Your task to perform on an android device: toggle sleep mode Image 0: 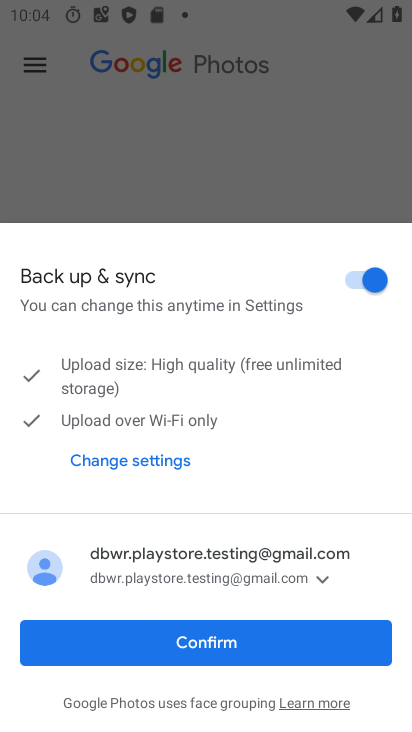
Step 0: press home button
Your task to perform on an android device: toggle sleep mode Image 1: 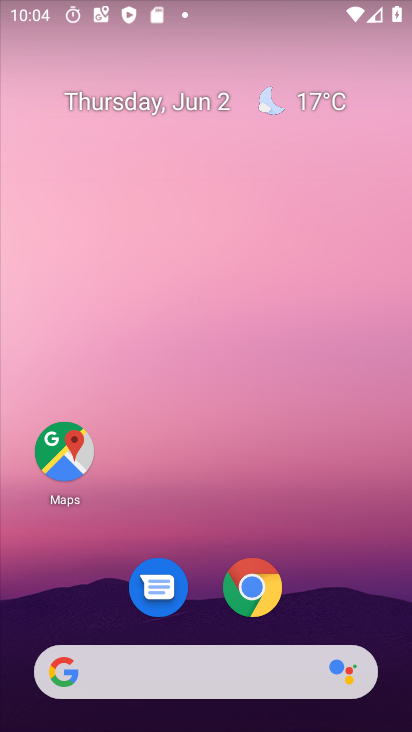
Step 1: drag from (211, 626) to (255, 91)
Your task to perform on an android device: toggle sleep mode Image 2: 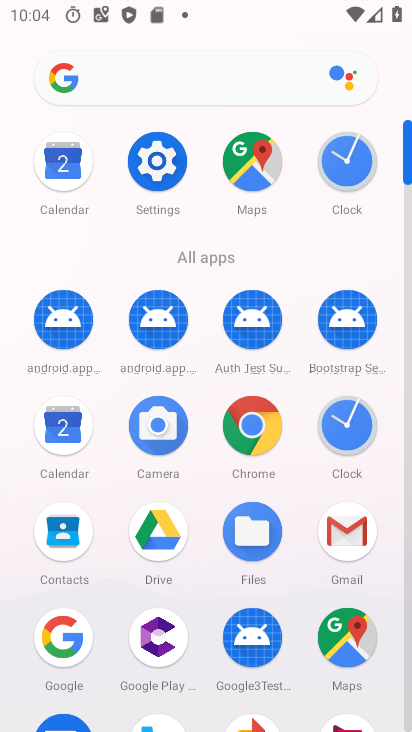
Step 2: click (154, 155)
Your task to perform on an android device: toggle sleep mode Image 3: 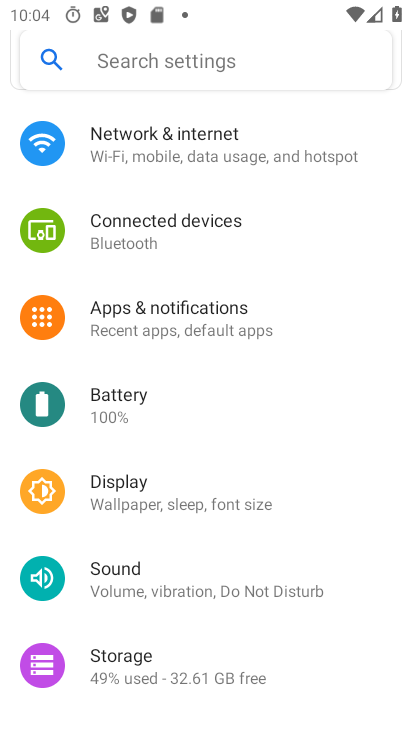
Step 3: click (171, 483)
Your task to perform on an android device: toggle sleep mode Image 4: 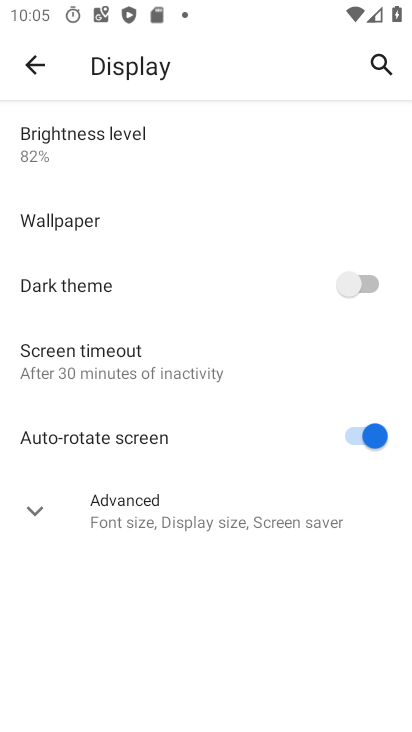
Step 4: click (39, 500)
Your task to perform on an android device: toggle sleep mode Image 5: 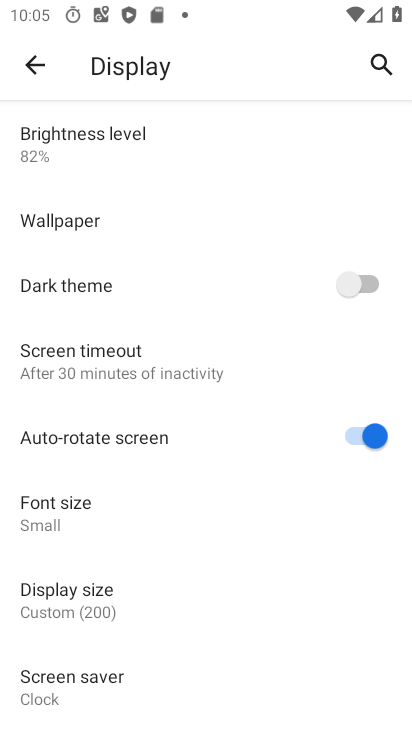
Step 5: task complete